Your task to perform on an android device: open chrome and create a bookmark for the current page Image 0: 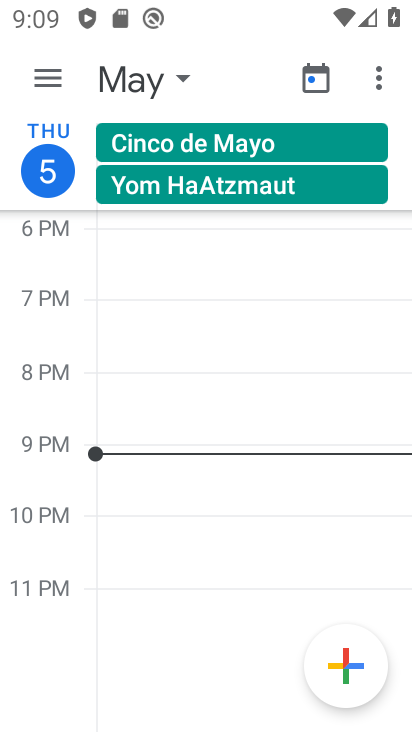
Step 0: press home button
Your task to perform on an android device: open chrome and create a bookmark for the current page Image 1: 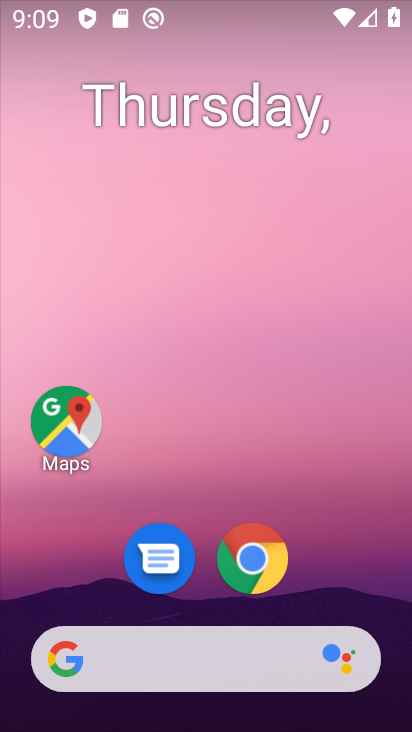
Step 1: click (251, 558)
Your task to perform on an android device: open chrome and create a bookmark for the current page Image 2: 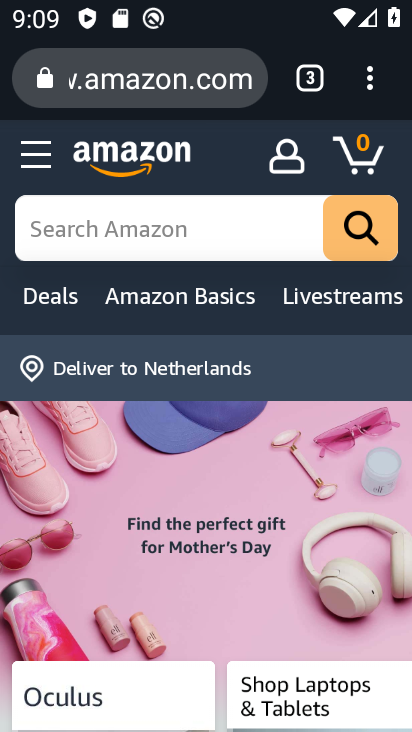
Step 2: click (369, 87)
Your task to perform on an android device: open chrome and create a bookmark for the current page Image 3: 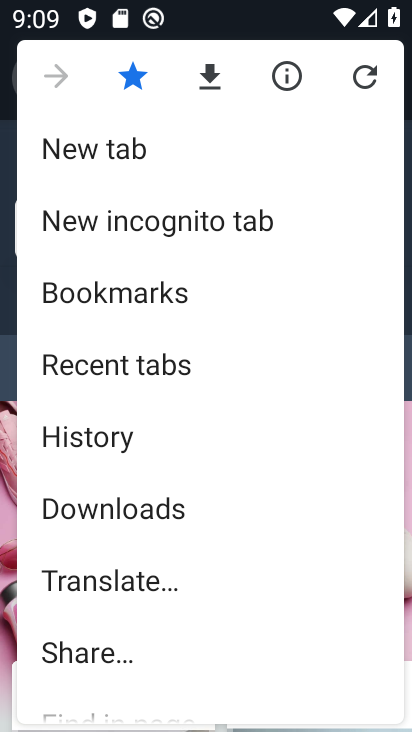
Step 3: task complete